Your task to perform on an android device: change your default location settings in chrome Image 0: 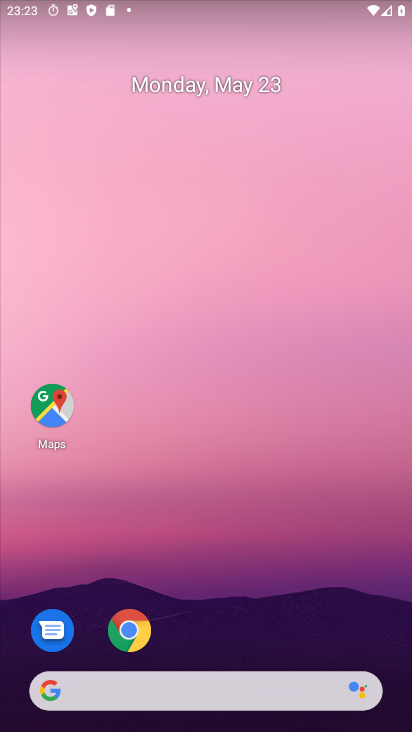
Step 0: click (135, 635)
Your task to perform on an android device: change your default location settings in chrome Image 1: 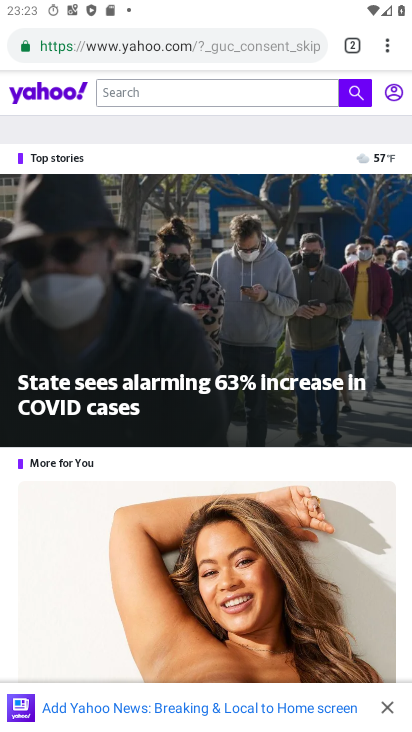
Step 1: click (388, 49)
Your task to perform on an android device: change your default location settings in chrome Image 2: 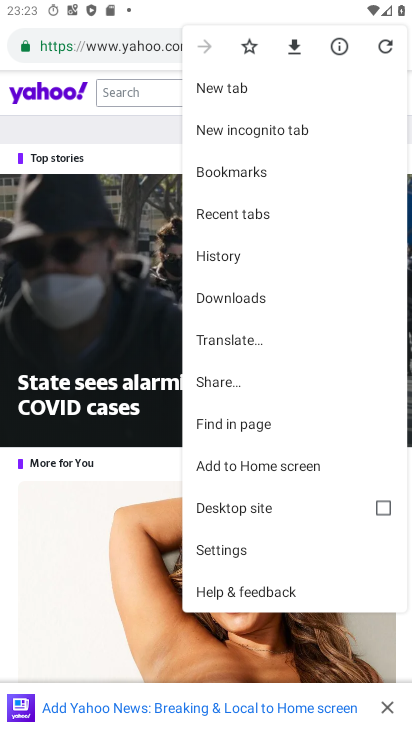
Step 2: click (228, 553)
Your task to perform on an android device: change your default location settings in chrome Image 3: 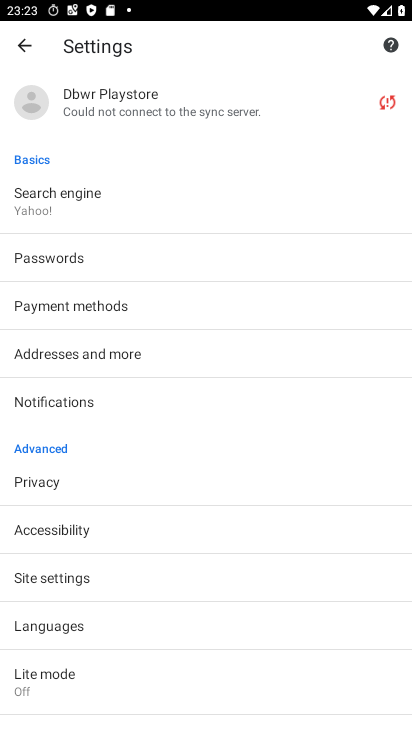
Step 3: click (51, 577)
Your task to perform on an android device: change your default location settings in chrome Image 4: 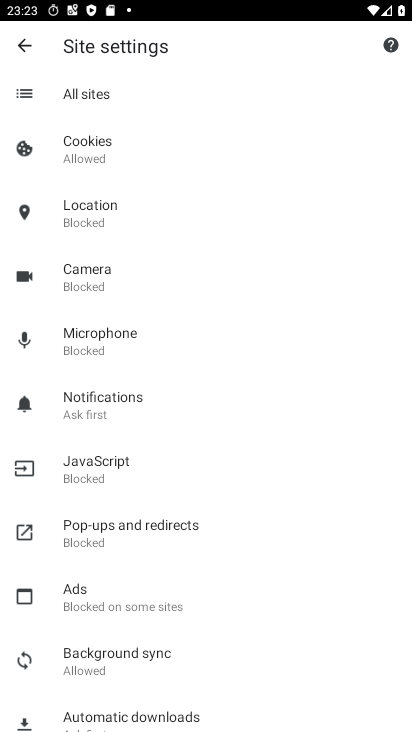
Step 4: click (88, 209)
Your task to perform on an android device: change your default location settings in chrome Image 5: 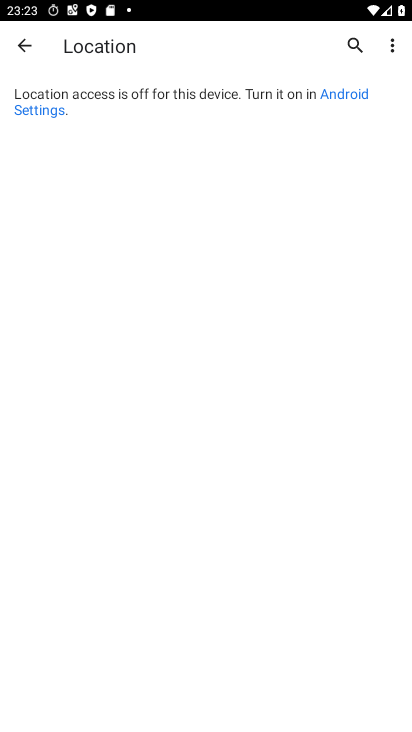
Step 5: click (354, 95)
Your task to perform on an android device: change your default location settings in chrome Image 6: 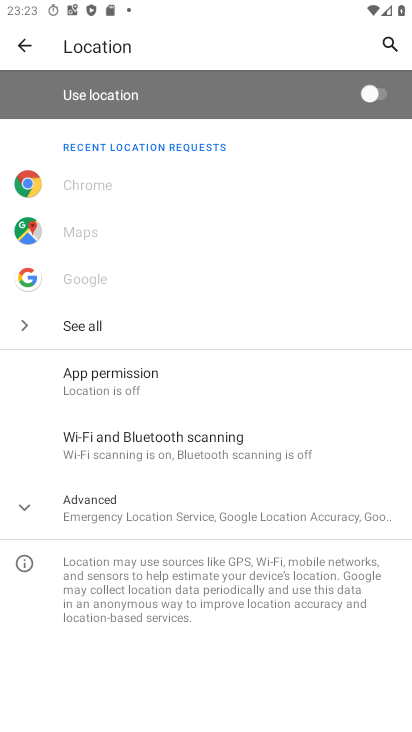
Step 6: click (366, 95)
Your task to perform on an android device: change your default location settings in chrome Image 7: 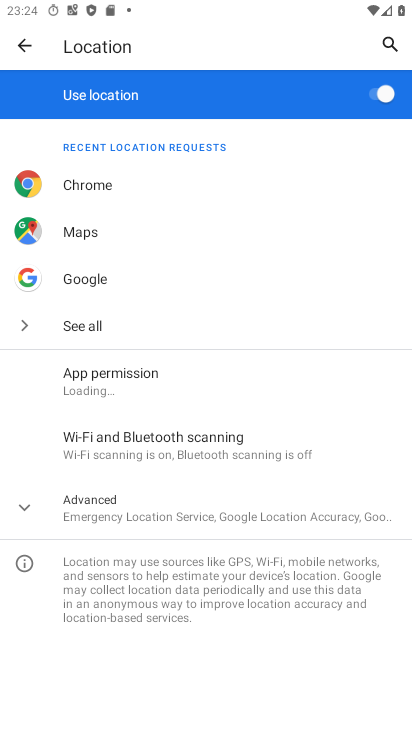
Step 7: task complete